Your task to perform on an android device: When is my next appointment? Image 0: 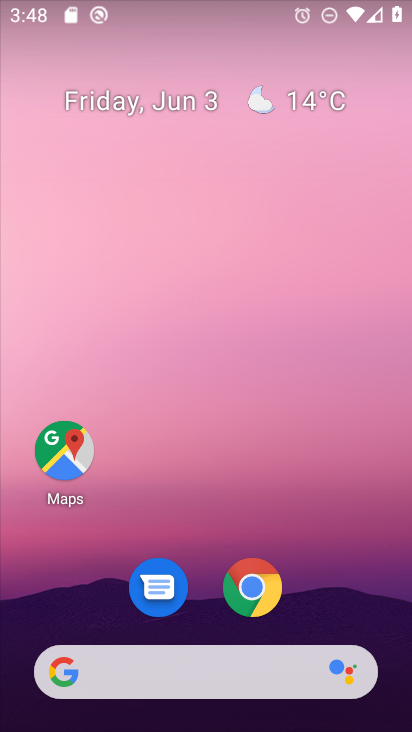
Step 0: drag from (217, 723) to (229, 174)
Your task to perform on an android device: When is my next appointment? Image 1: 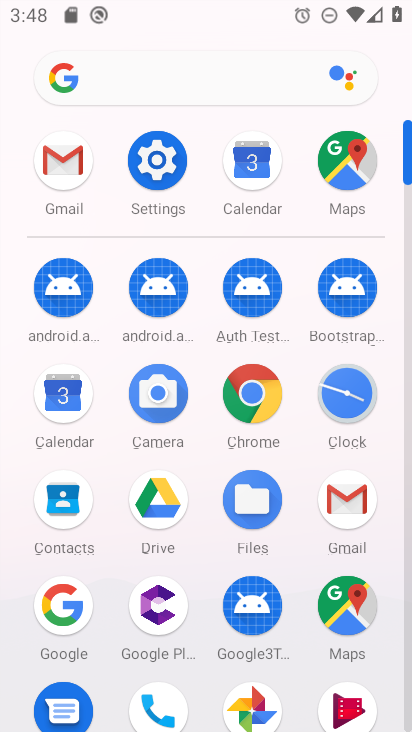
Step 1: click (61, 397)
Your task to perform on an android device: When is my next appointment? Image 2: 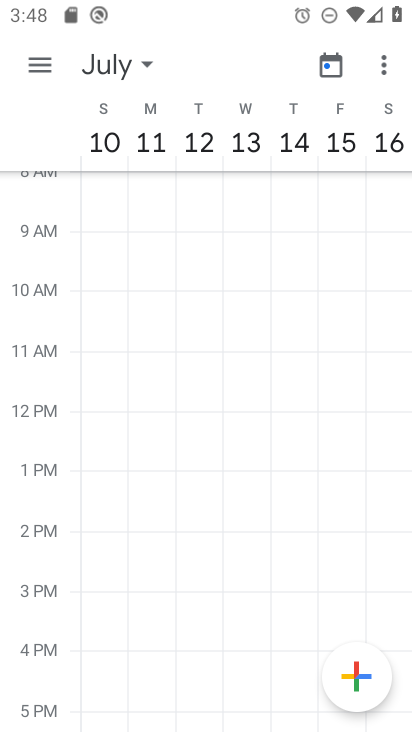
Step 2: click (151, 59)
Your task to perform on an android device: When is my next appointment? Image 3: 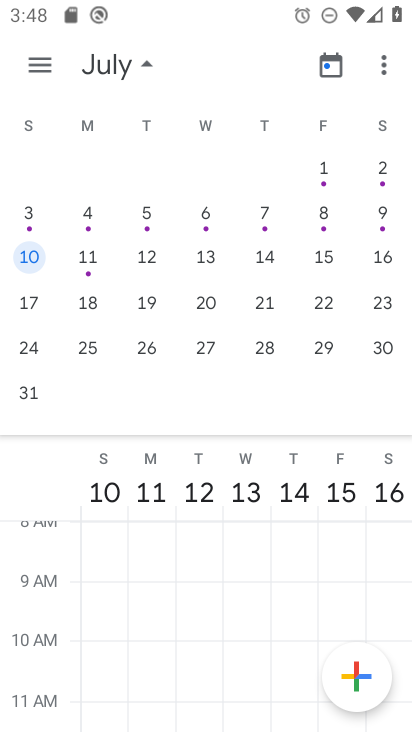
Step 3: drag from (31, 279) to (309, 248)
Your task to perform on an android device: When is my next appointment? Image 4: 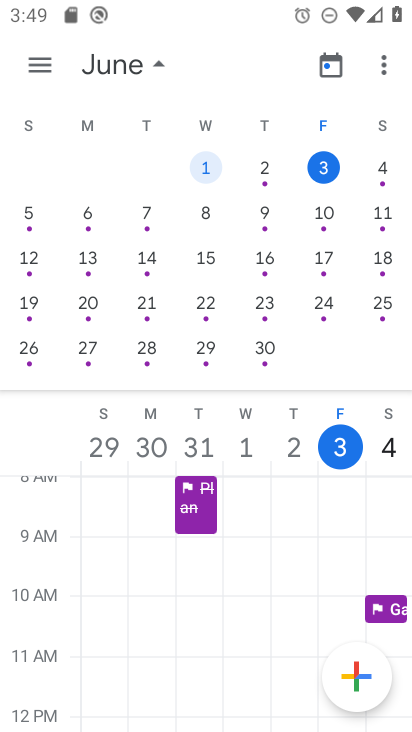
Step 4: click (379, 160)
Your task to perform on an android device: When is my next appointment? Image 5: 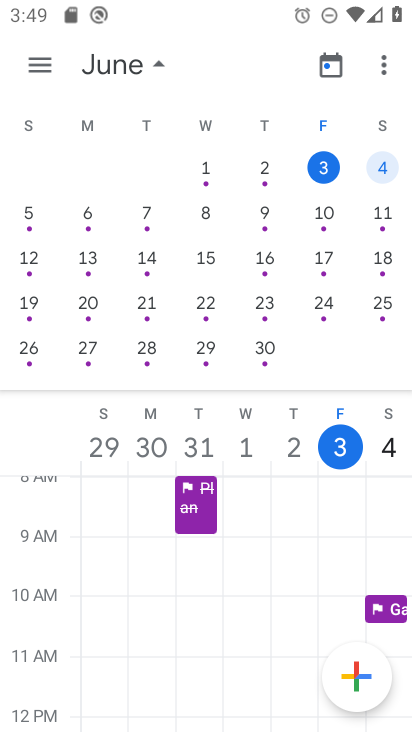
Step 5: click (379, 160)
Your task to perform on an android device: When is my next appointment? Image 6: 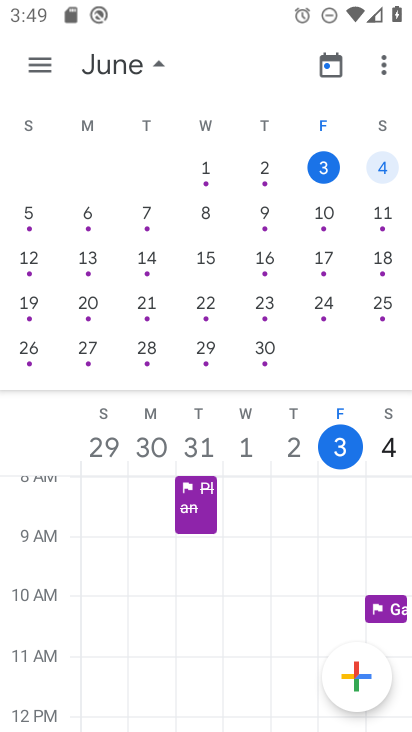
Step 6: click (379, 160)
Your task to perform on an android device: When is my next appointment? Image 7: 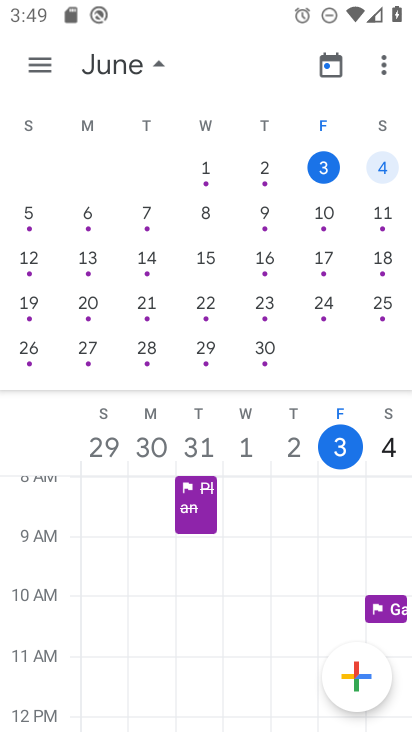
Step 7: click (157, 59)
Your task to perform on an android device: When is my next appointment? Image 8: 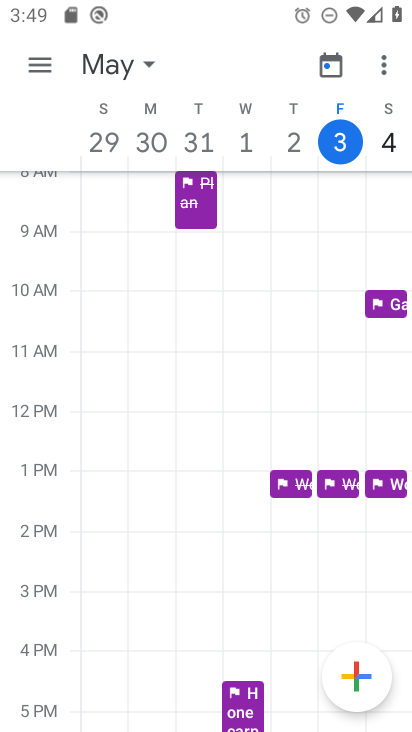
Step 8: click (389, 141)
Your task to perform on an android device: When is my next appointment? Image 9: 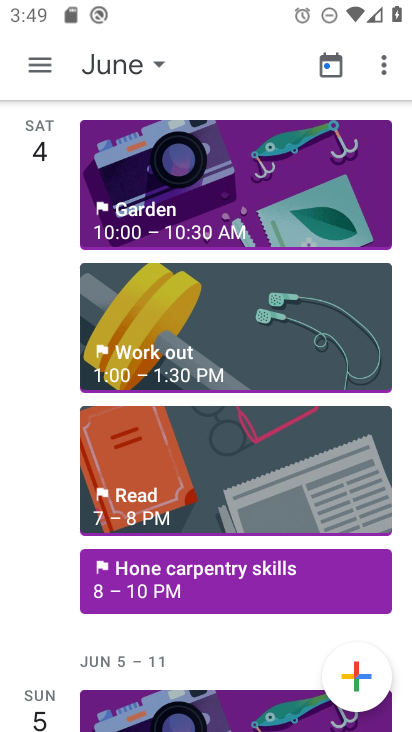
Step 9: task complete